Your task to perform on an android device: Go to network settings Image 0: 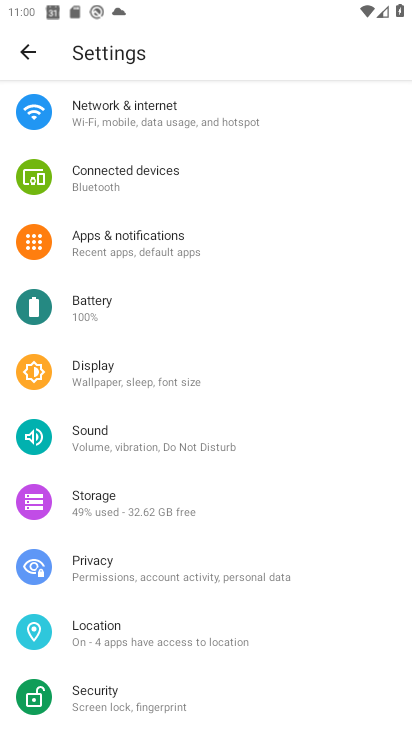
Step 0: press back button
Your task to perform on an android device: Go to network settings Image 1: 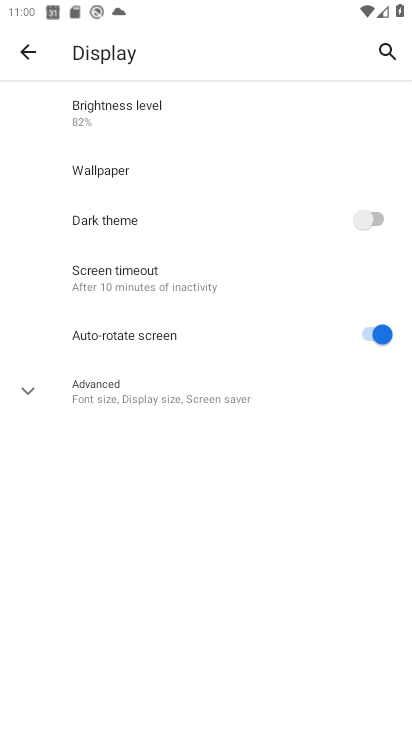
Step 1: press home button
Your task to perform on an android device: Go to network settings Image 2: 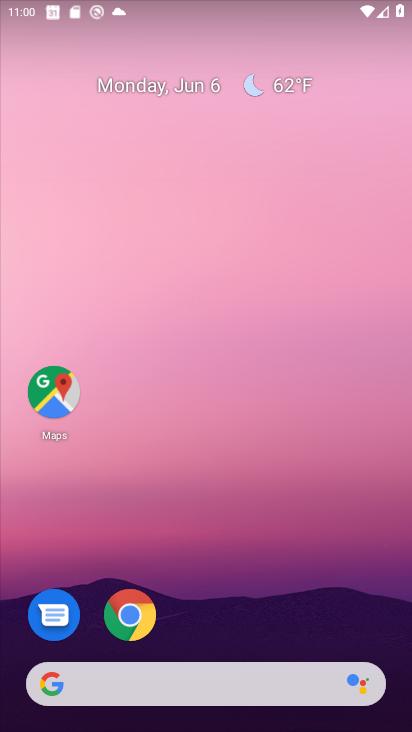
Step 2: drag from (252, 654) to (192, 169)
Your task to perform on an android device: Go to network settings Image 3: 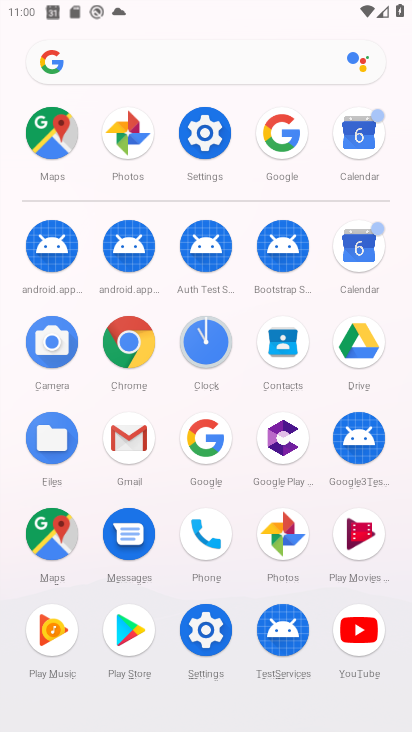
Step 3: click (205, 143)
Your task to perform on an android device: Go to network settings Image 4: 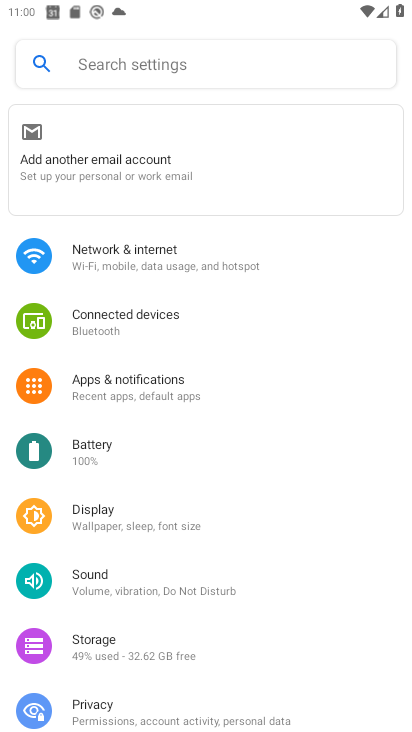
Step 4: click (121, 265)
Your task to perform on an android device: Go to network settings Image 5: 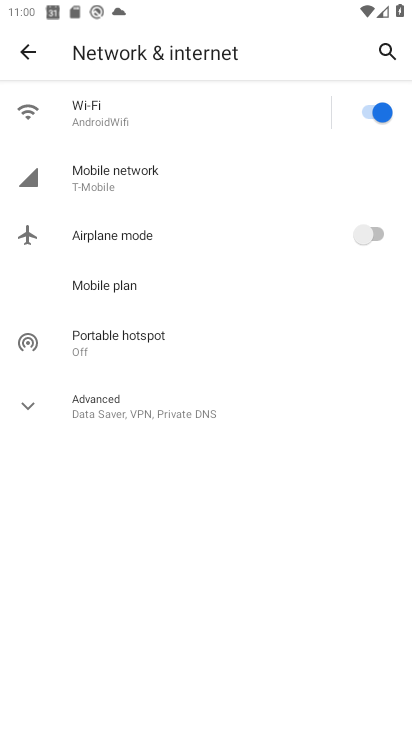
Step 5: task complete